Your task to perform on an android device: Go to Yahoo.com Image 0: 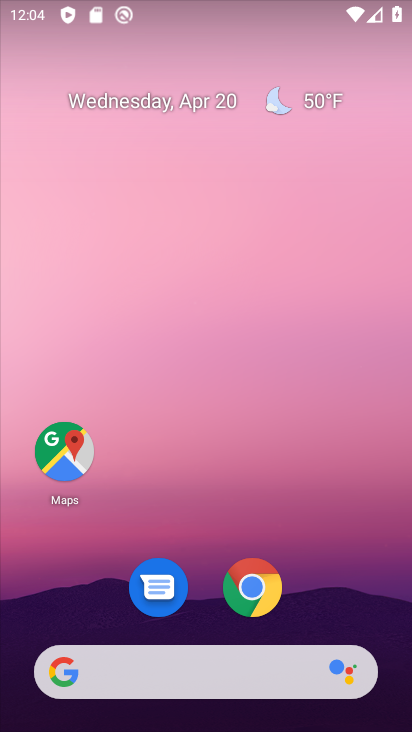
Step 0: click (256, 566)
Your task to perform on an android device: Go to Yahoo.com Image 1: 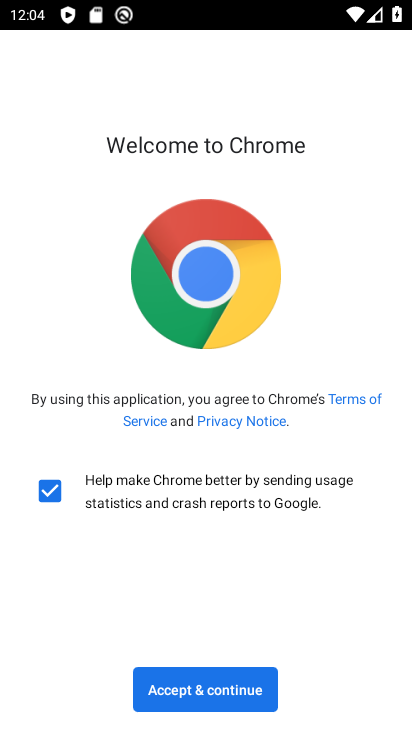
Step 1: click (251, 692)
Your task to perform on an android device: Go to Yahoo.com Image 2: 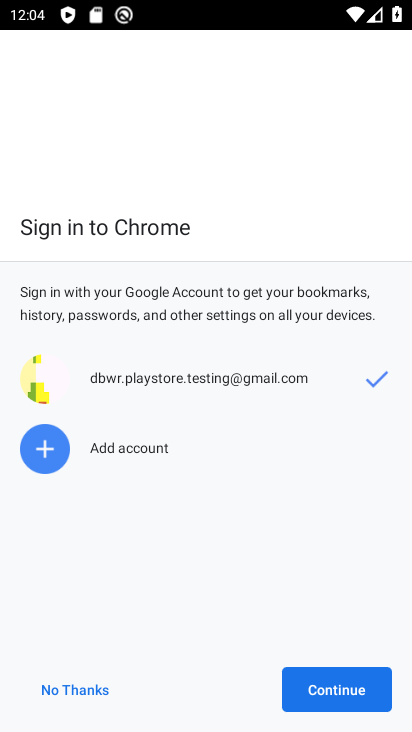
Step 2: click (364, 693)
Your task to perform on an android device: Go to Yahoo.com Image 3: 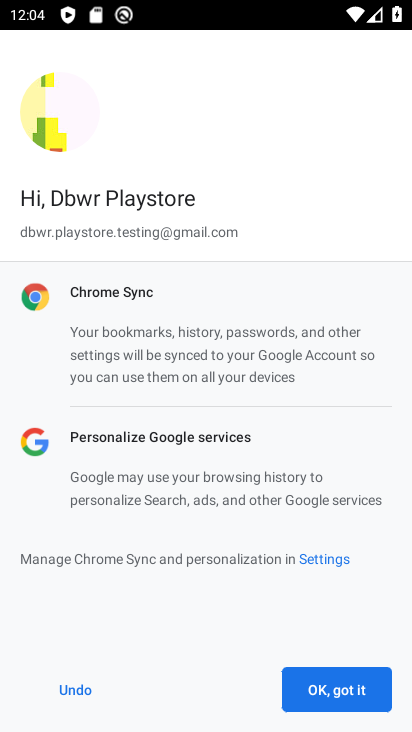
Step 3: click (365, 692)
Your task to perform on an android device: Go to Yahoo.com Image 4: 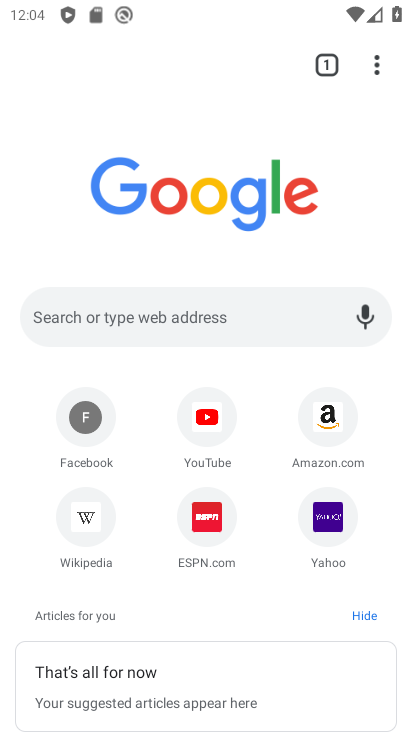
Step 4: click (204, 322)
Your task to perform on an android device: Go to Yahoo.com Image 5: 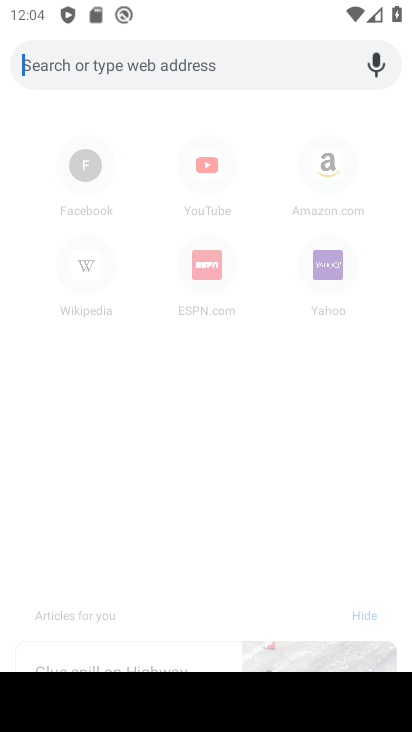
Step 5: click (333, 264)
Your task to perform on an android device: Go to Yahoo.com Image 6: 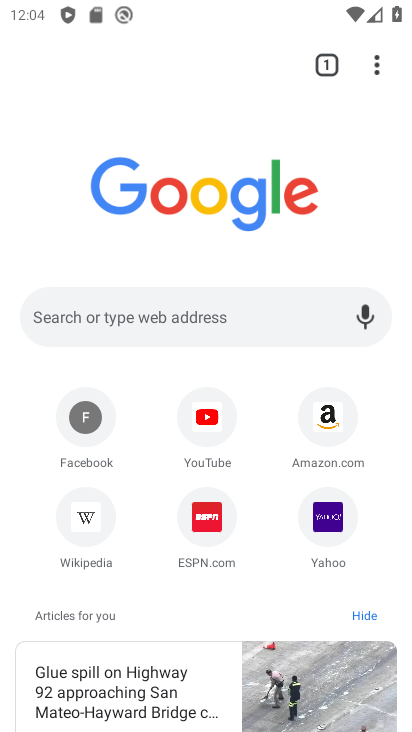
Step 6: click (340, 539)
Your task to perform on an android device: Go to Yahoo.com Image 7: 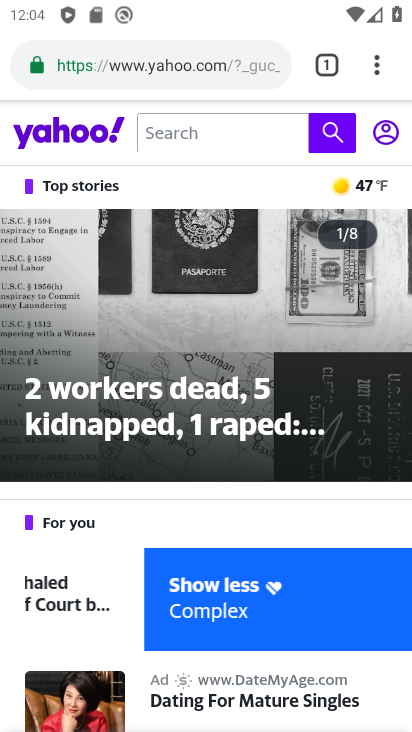
Step 7: task complete